Your task to perform on an android device: Go to Wikipedia Image 0: 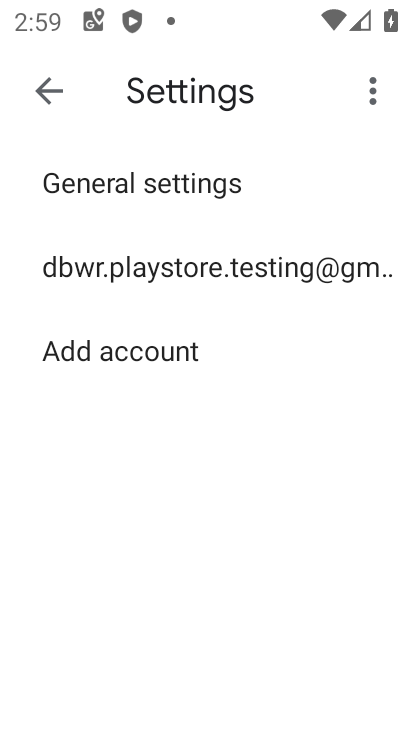
Step 0: press home button
Your task to perform on an android device: Go to Wikipedia Image 1: 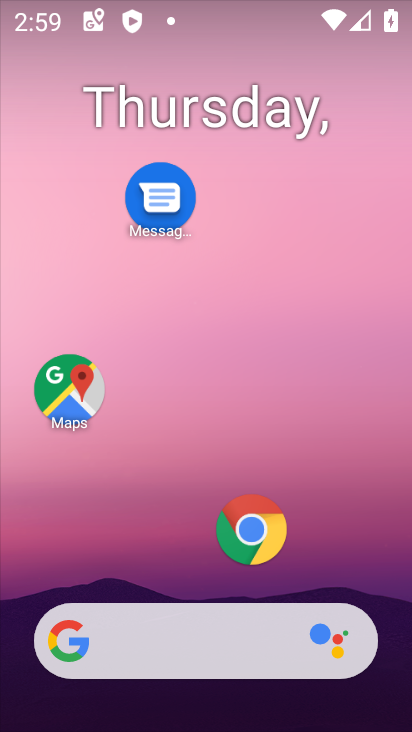
Step 1: click (255, 531)
Your task to perform on an android device: Go to Wikipedia Image 2: 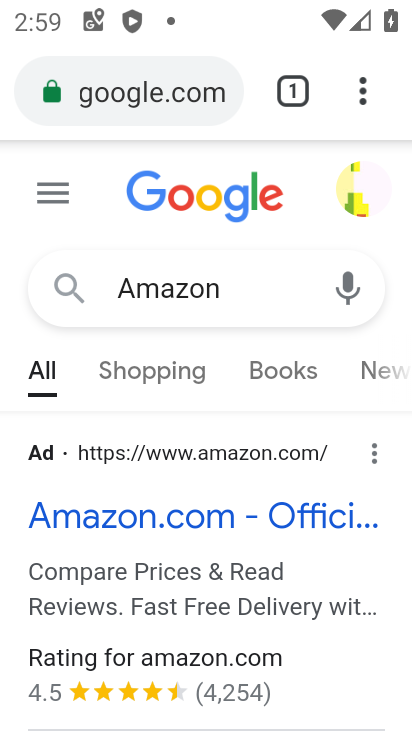
Step 2: click (127, 111)
Your task to perform on an android device: Go to Wikipedia Image 3: 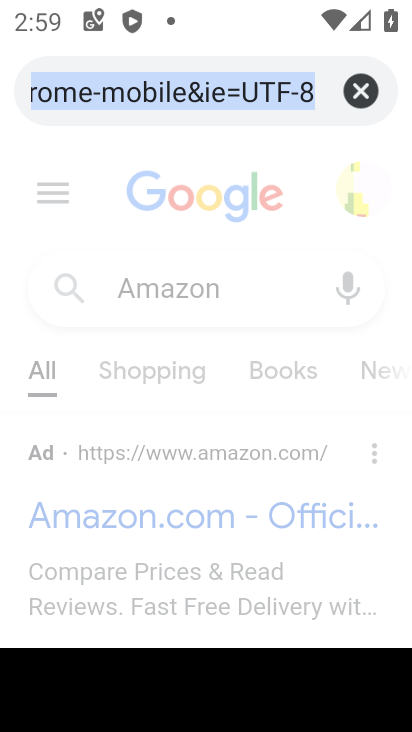
Step 3: type "Wikipedia"
Your task to perform on an android device: Go to Wikipedia Image 4: 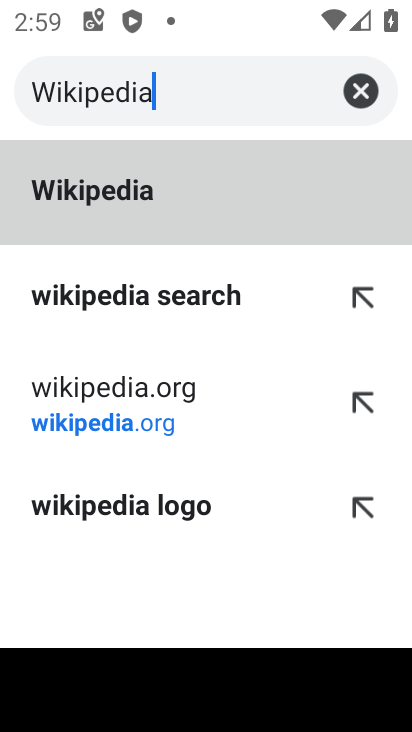
Step 4: click (165, 213)
Your task to perform on an android device: Go to Wikipedia Image 5: 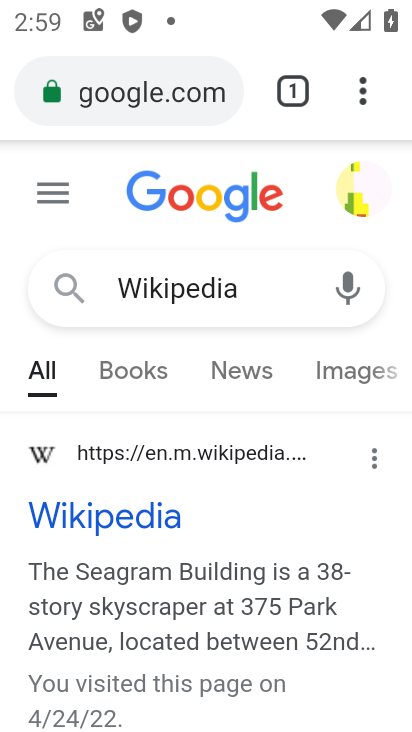
Step 5: task complete